Your task to perform on an android device: Open the Play Movies app and select the watchlist tab. Image 0: 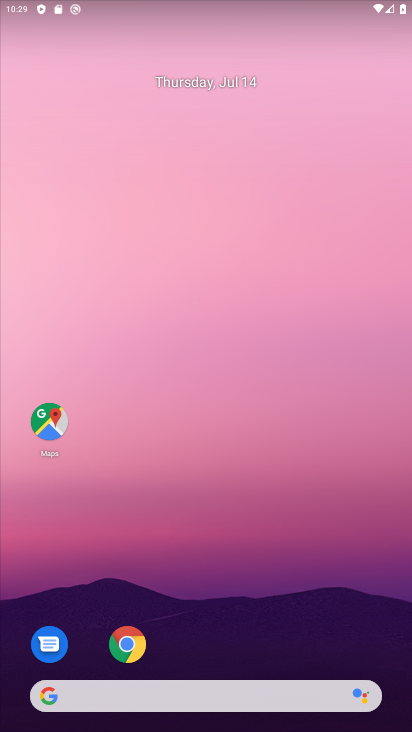
Step 0: drag from (197, 691) to (233, 154)
Your task to perform on an android device: Open the Play Movies app and select the watchlist tab. Image 1: 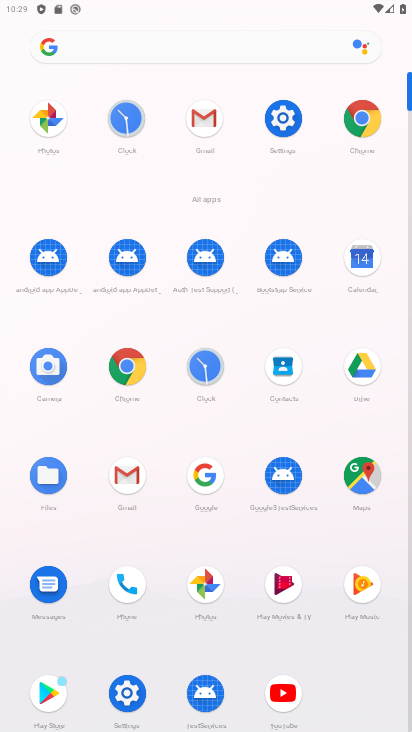
Step 1: click (280, 580)
Your task to perform on an android device: Open the Play Movies app and select the watchlist tab. Image 2: 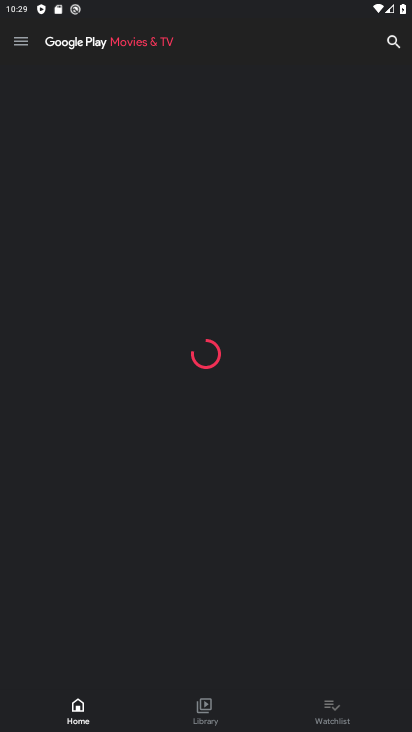
Step 2: click (334, 712)
Your task to perform on an android device: Open the Play Movies app and select the watchlist tab. Image 3: 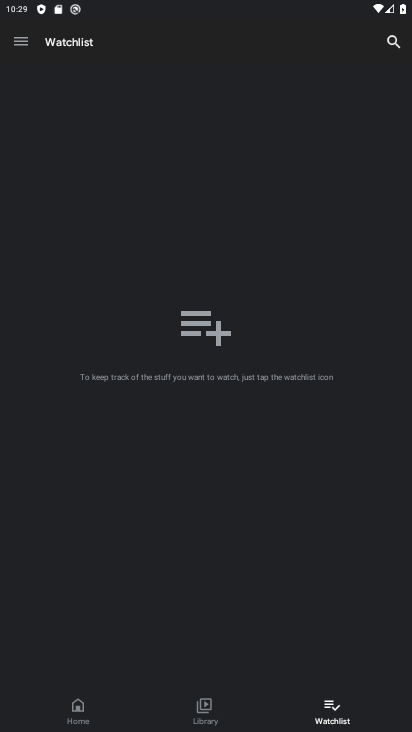
Step 3: task complete